Your task to perform on an android device: Go to ESPN.com Image 0: 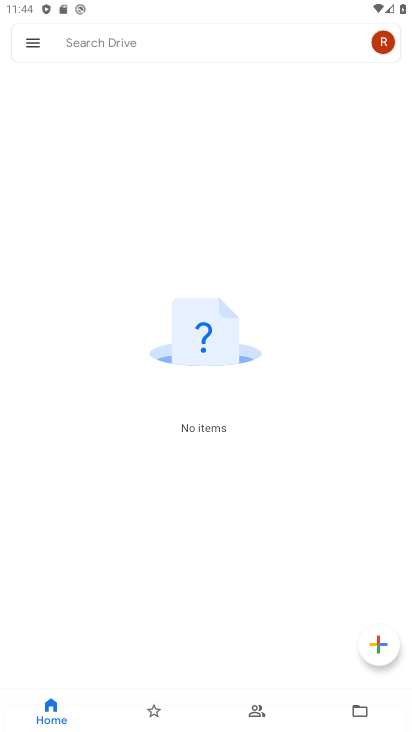
Step 0: press home button
Your task to perform on an android device: Go to ESPN.com Image 1: 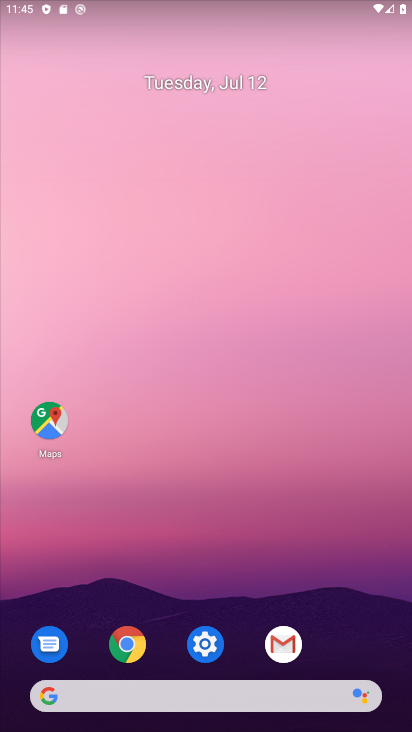
Step 1: click (124, 648)
Your task to perform on an android device: Go to ESPN.com Image 2: 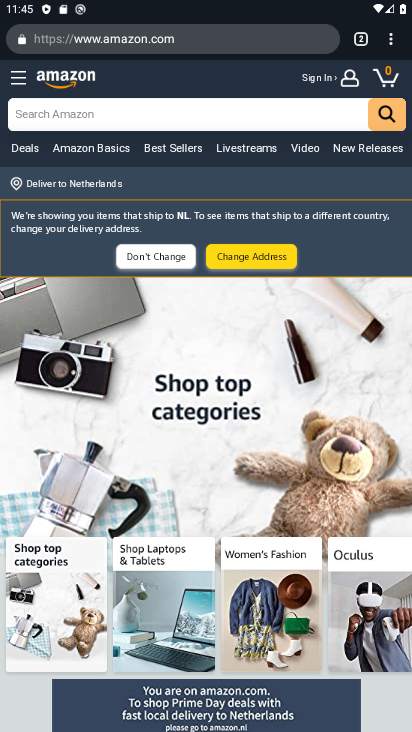
Step 2: click (361, 50)
Your task to perform on an android device: Go to ESPN.com Image 3: 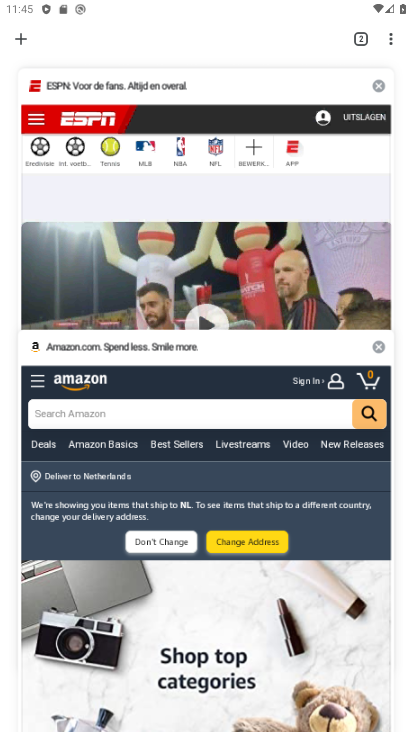
Step 3: click (22, 46)
Your task to perform on an android device: Go to ESPN.com Image 4: 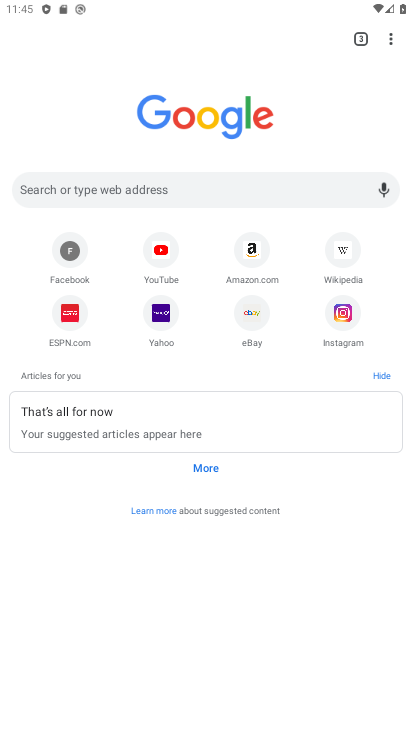
Step 4: click (75, 322)
Your task to perform on an android device: Go to ESPN.com Image 5: 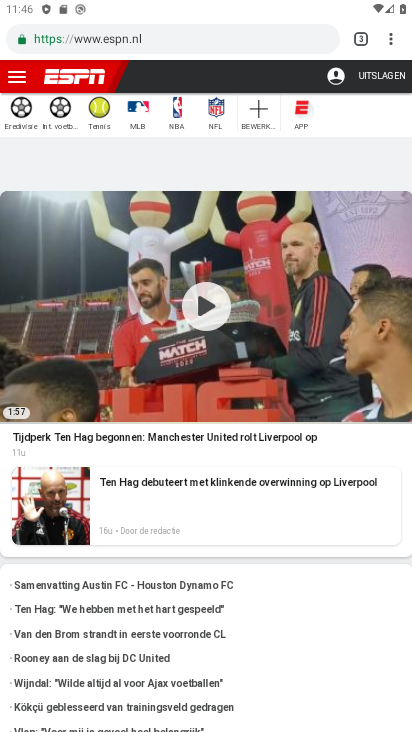
Step 5: task complete